Your task to perform on an android device: see tabs open on other devices in the chrome app Image 0: 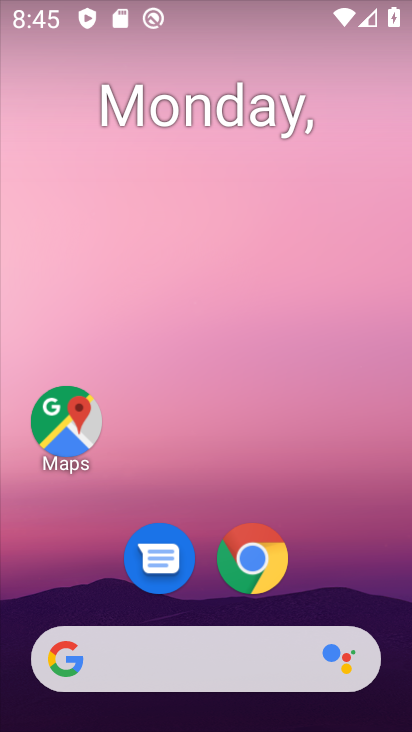
Step 0: click (257, 559)
Your task to perform on an android device: see tabs open on other devices in the chrome app Image 1: 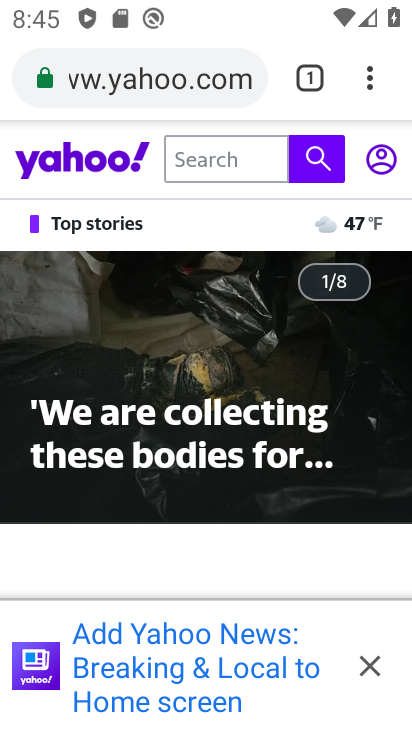
Step 1: drag from (371, 75) to (141, 381)
Your task to perform on an android device: see tabs open on other devices in the chrome app Image 2: 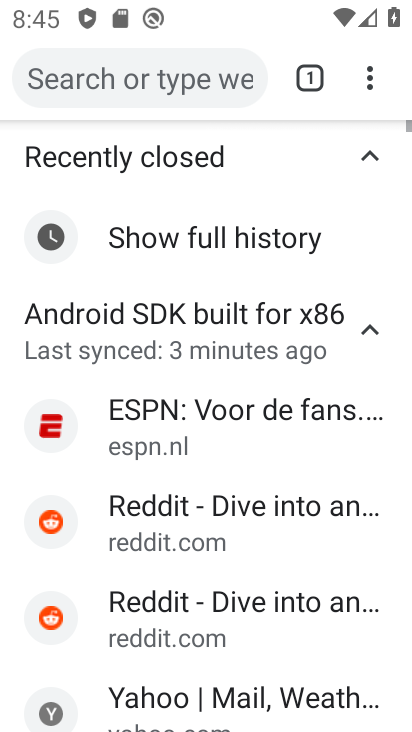
Step 2: drag from (227, 539) to (229, 491)
Your task to perform on an android device: see tabs open on other devices in the chrome app Image 3: 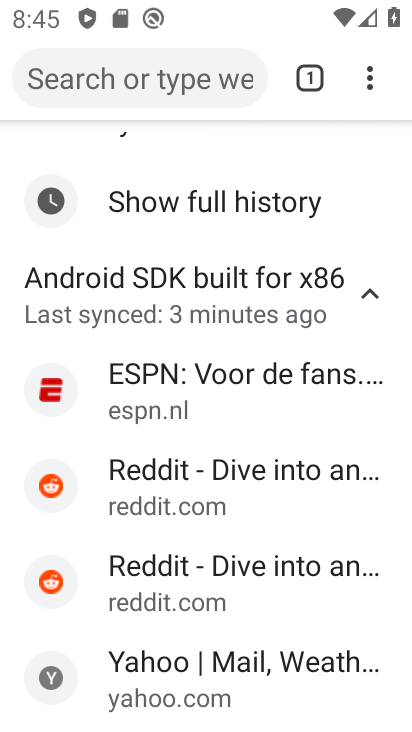
Step 3: click (358, 291)
Your task to perform on an android device: see tabs open on other devices in the chrome app Image 4: 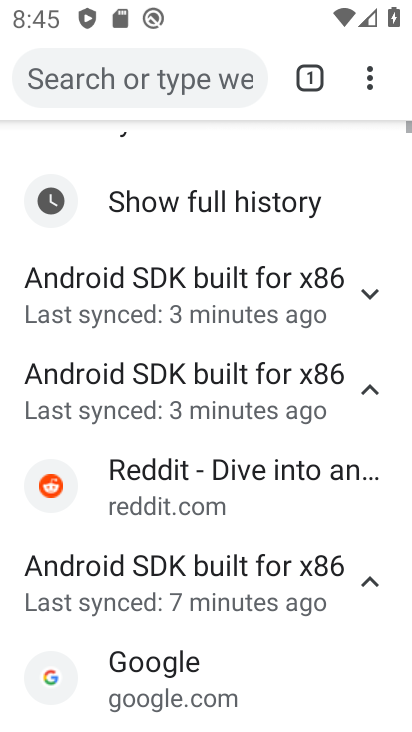
Step 4: task complete